Your task to perform on an android device: change notifications settings Image 0: 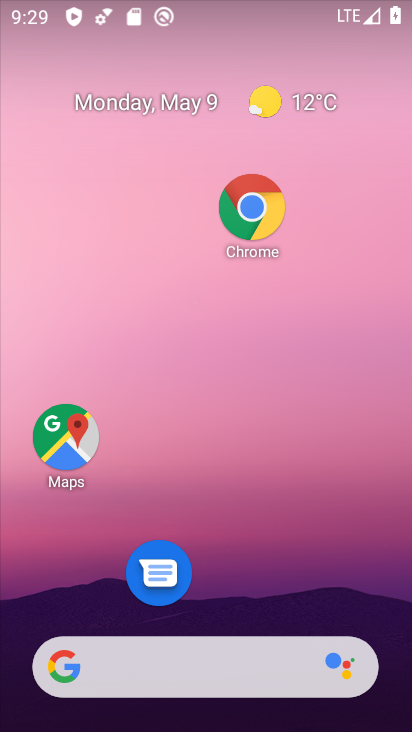
Step 0: drag from (280, 585) to (411, 77)
Your task to perform on an android device: change notifications settings Image 1: 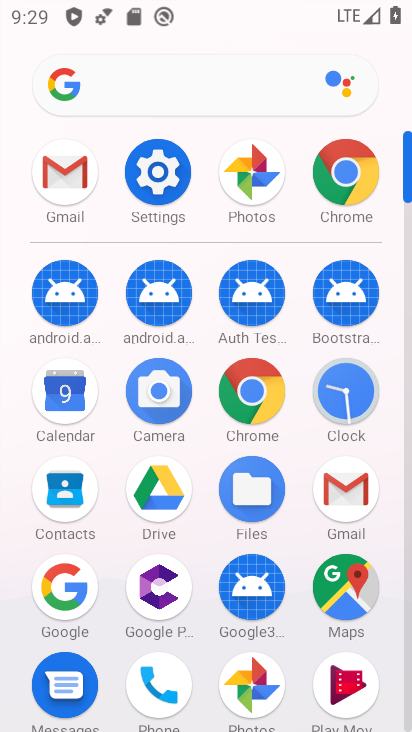
Step 1: click (151, 229)
Your task to perform on an android device: change notifications settings Image 2: 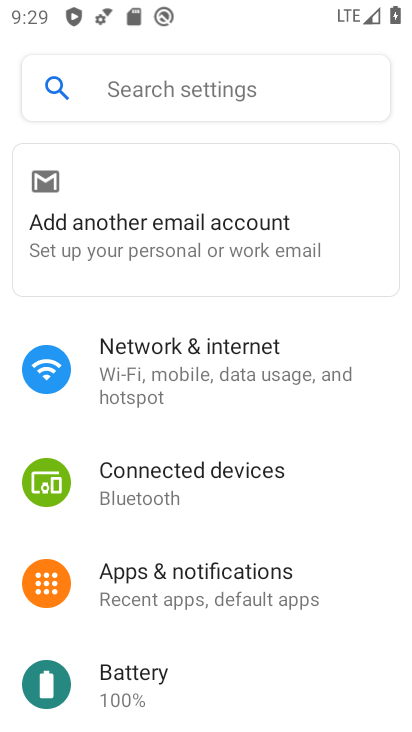
Step 2: click (232, 609)
Your task to perform on an android device: change notifications settings Image 3: 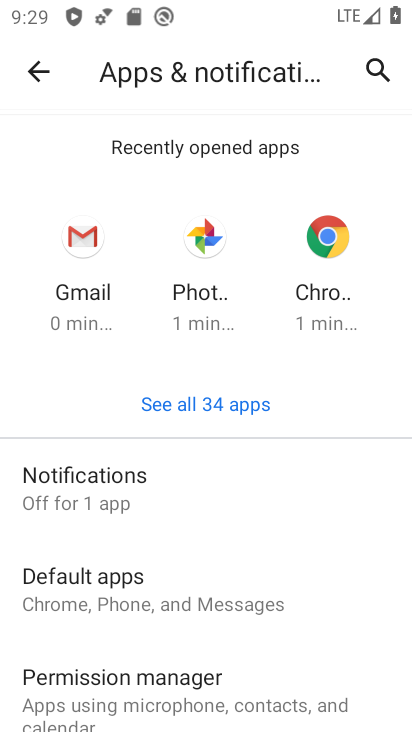
Step 3: click (228, 514)
Your task to perform on an android device: change notifications settings Image 4: 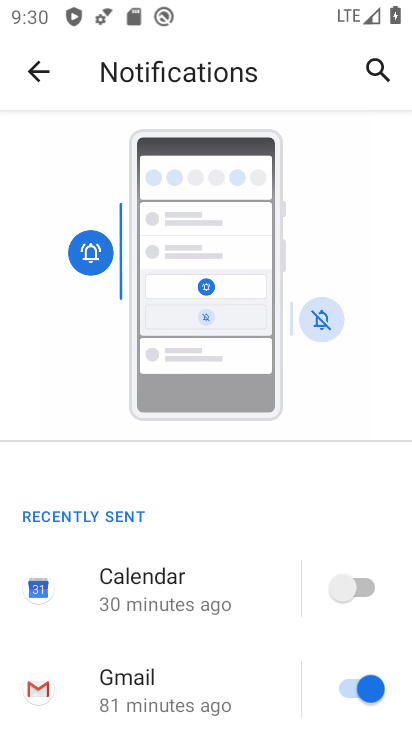
Step 4: click (378, 595)
Your task to perform on an android device: change notifications settings Image 5: 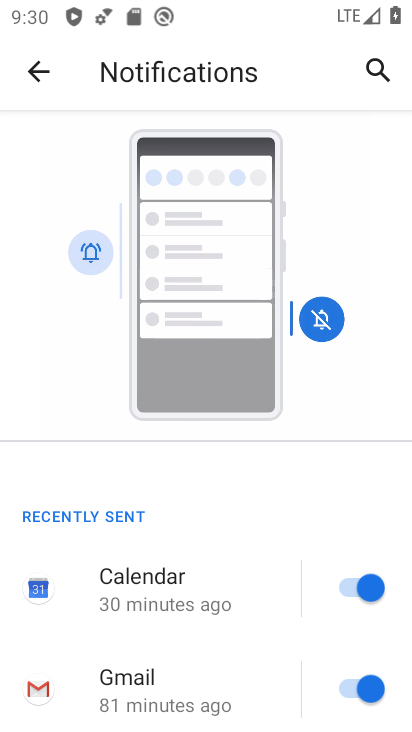
Step 5: task complete